Your task to perform on an android device: Go to Amazon Image 0: 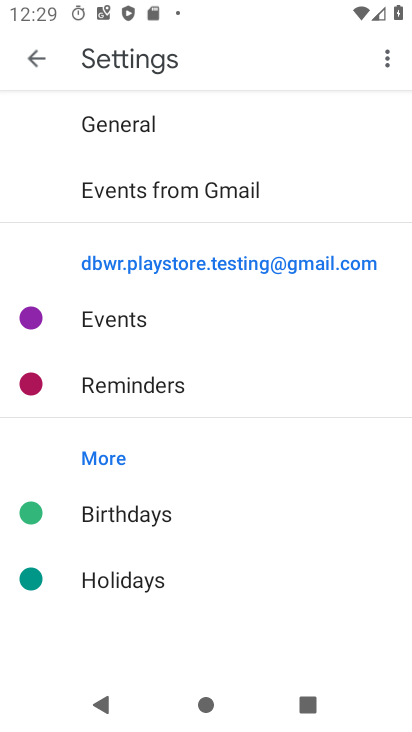
Step 0: press home button
Your task to perform on an android device: Go to Amazon Image 1: 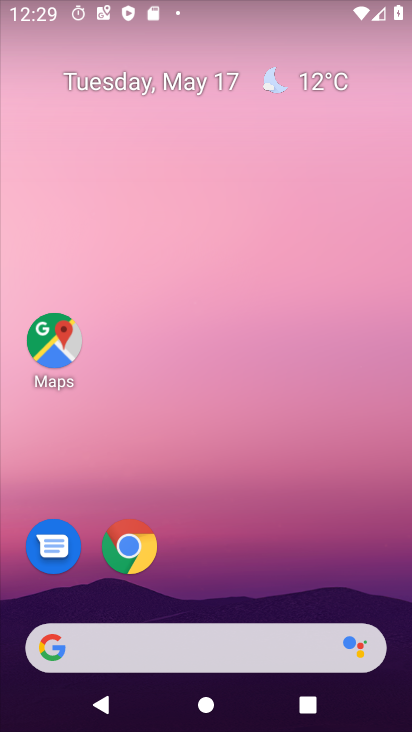
Step 1: click (131, 563)
Your task to perform on an android device: Go to Amazon Image 2: 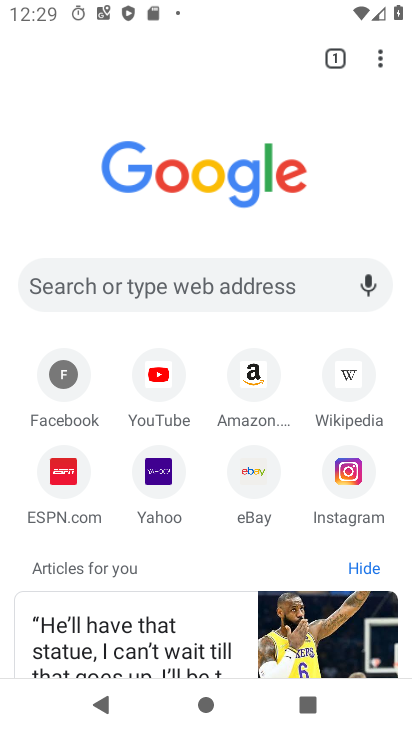
Step 2: click (254, 377)
Your task to perform on an android device: Go to Amazon Image 3: 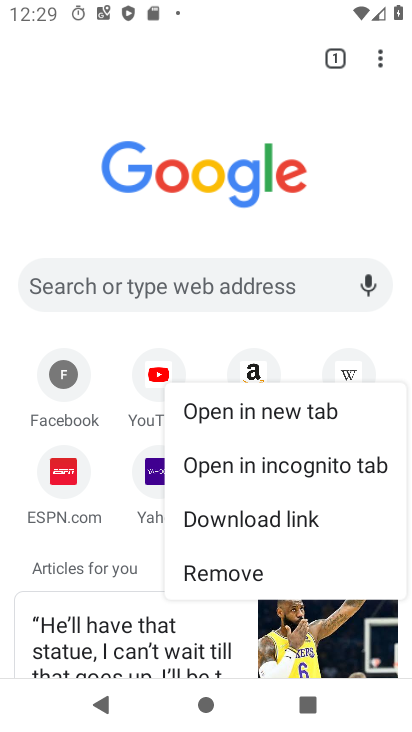
Step 3: click (254, 377)
Your task to perform on an android device: Go to Amazon Image 4: 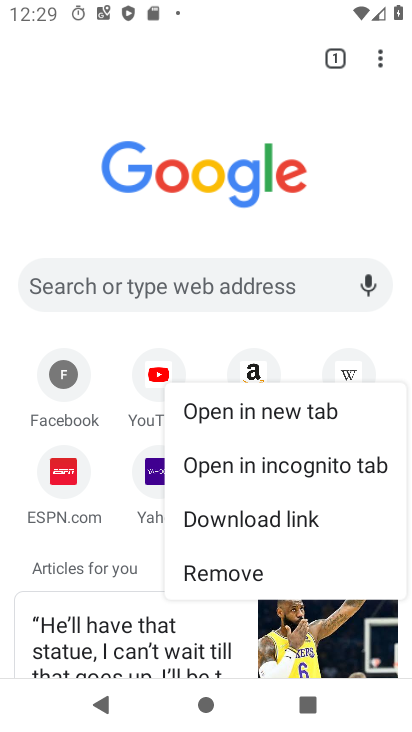
Step 4: click (250, 368)
Your task to perform on an android device: Go to Amazon Image 5: 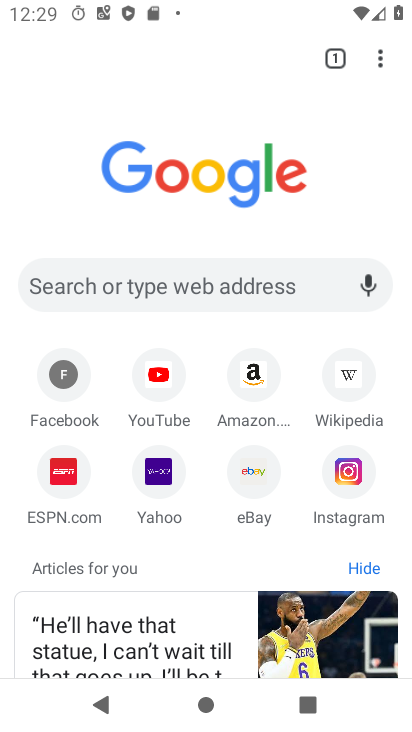
Step 5: click (250, 371)
Your task to perform on an android device: Go to Amazon Image 6: 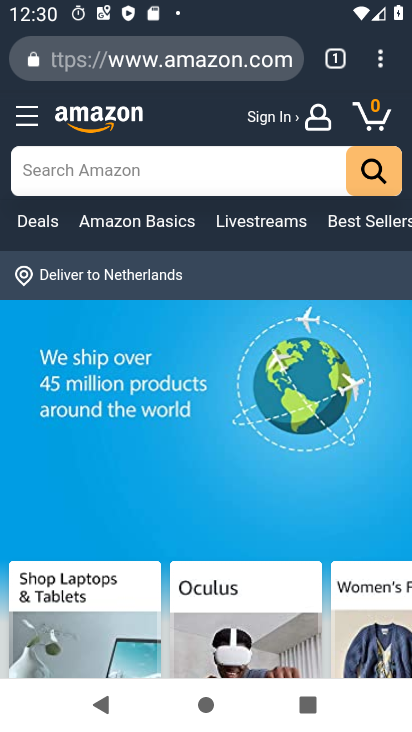
Step 6: task complete